Your task to perform on an android device: remove spam from my inbox in the gmail app Image 0: 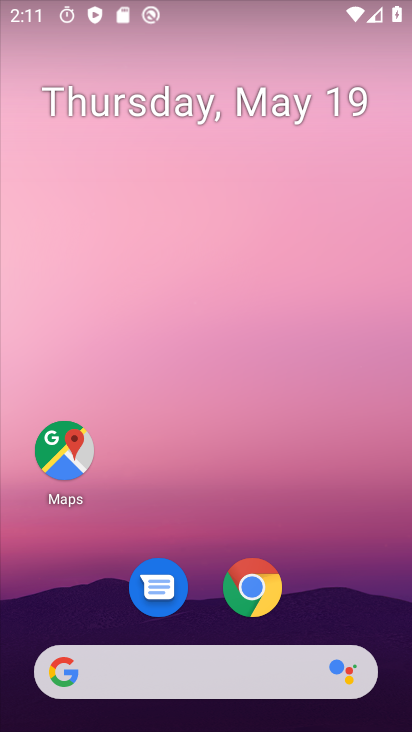
Step 0: drag from (231, 726) to (232, 168)
Your task to perform on an android device: remove spam from my inbox in the gmail app Image 1: 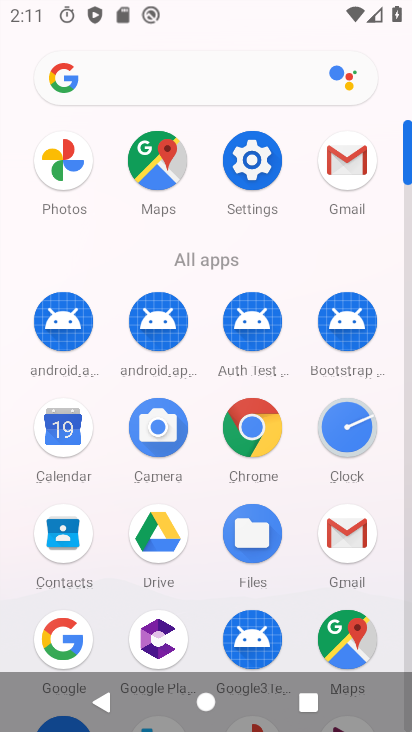
Step 1: click (342, 522)
Your task to perform on an android device: remove spam from my inbox in the gmail app Image 2: 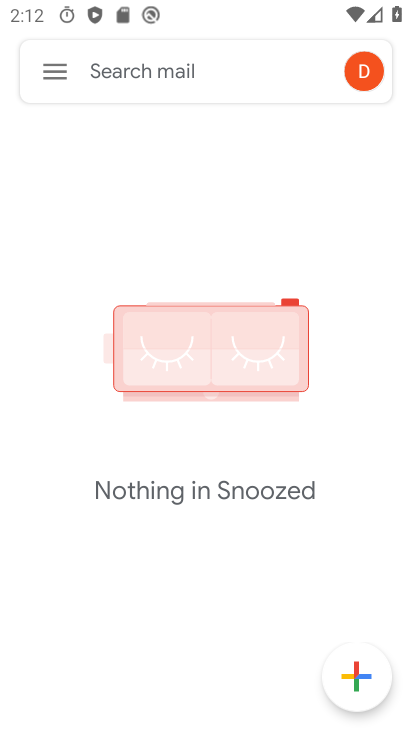
Step 2: click (55, 64)
Your task to perform on an android device: remove spam from my inbox in the gmail app Image 3: 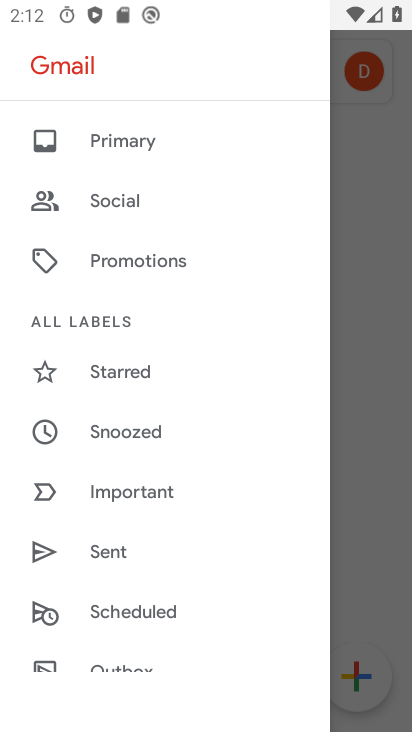
Step 3: drag from (157, 204) to (171, 629)
Your task to perform on an android device: remove spam from my inbox in the gmail app Image 4: 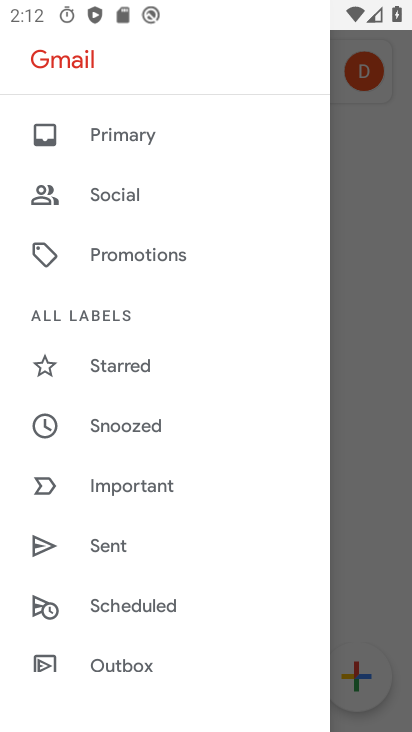
Step 4: drag from (142, 219) to (180, 532)
Your task to perform on an android device: remove spam from my inbox in the gmail app Image 5: 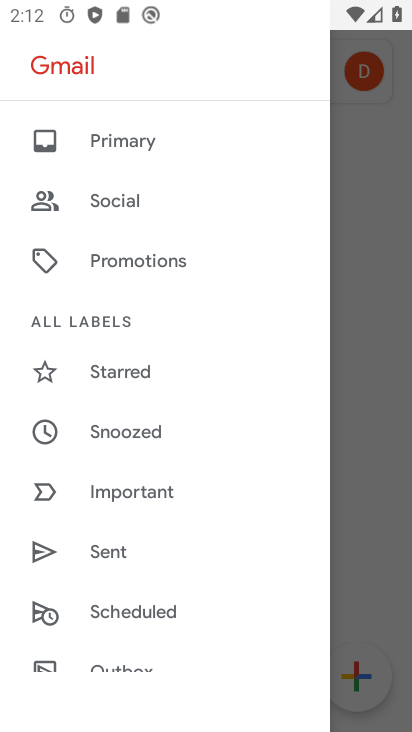
Step 5: click (140, 132)
Your task to perform on an android device: remove spam from my inbox in the gmail app Image 6: 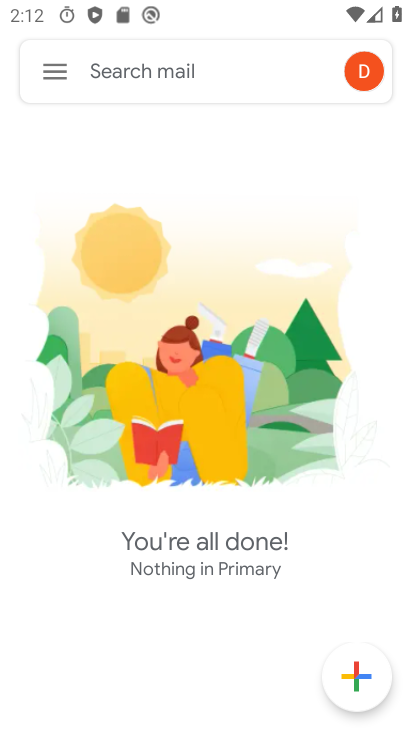
Step 6: task complete